Your task to perform on an android device: Go to ESPN.com Image 0: 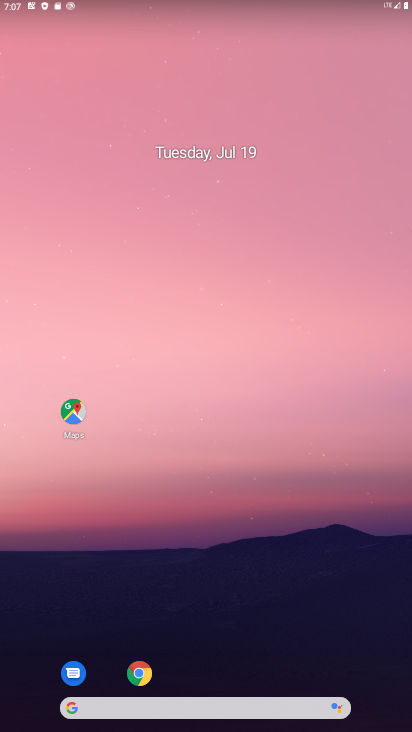
Step 0: drag from (372, 693) to (260, 22)
Your task to perform on an android device: Go to ESPN.com Image 1: 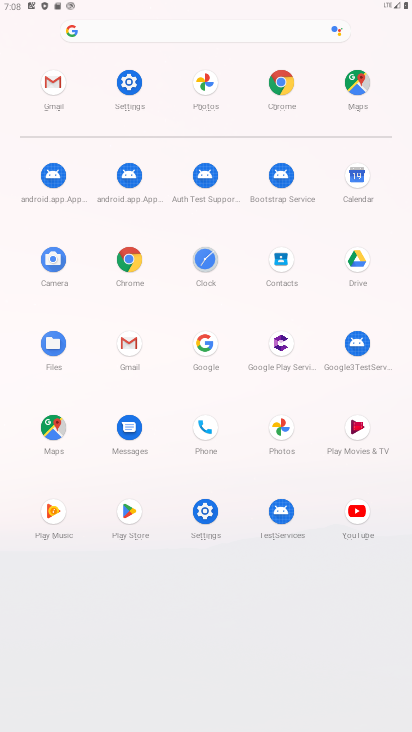
Step 1: click (201, 351)
Your task to perform on an android device: Go to ESPN.com Image 2: 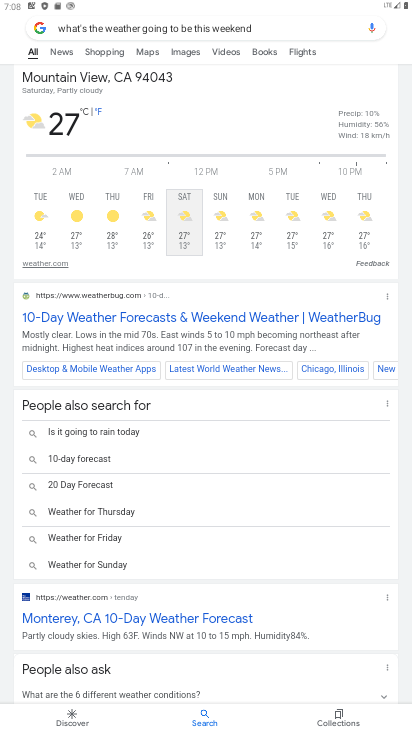
Step 2: press back button
Your task to perform on an android device: Go to ESPN.com Image 3: 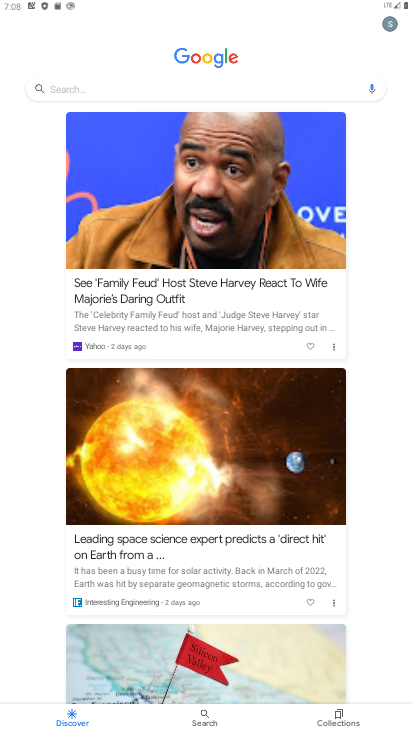
Step 3: click (103, 91)
Your task to perform on an android device: Go to ESPN.com Image 4: 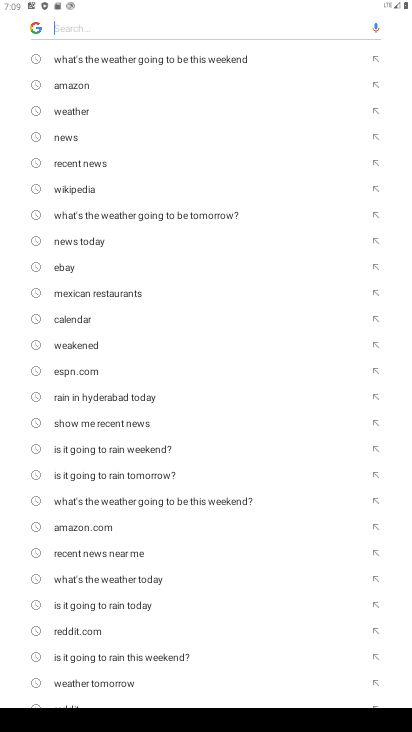
Step 4: type "ESPN.com"
Your task to perform on an android device: Go to ESPN.com Image 5: 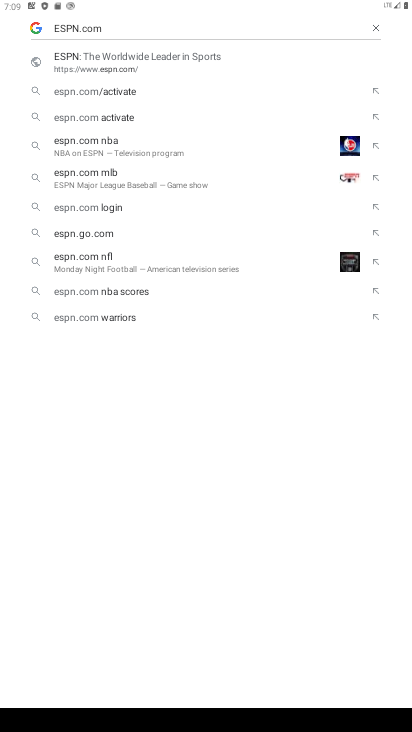
Step 5: click (88, 59)
Your task to perform on an android device: Go to ESPN.com Image 6: 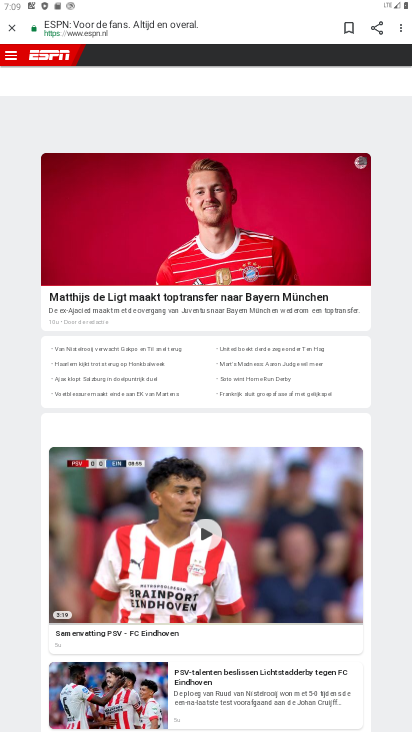
Step 6: task complete